Your task to perform on an android device: Open Android settings Image 0: 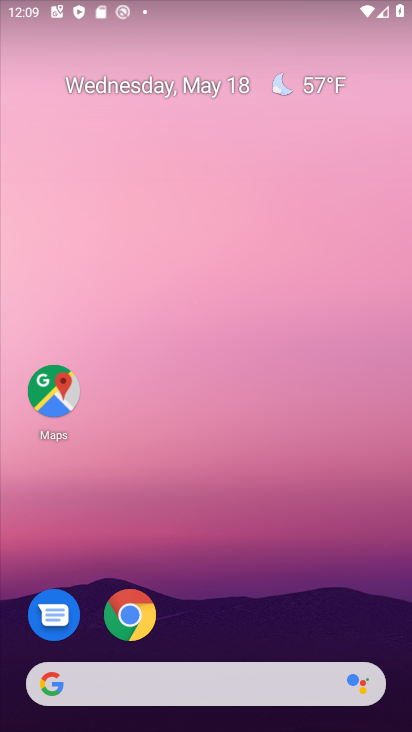
Step 0: drag from (366, 607) to (284, 125)
Your task to perform on an android device: Open Android settings Image 1: 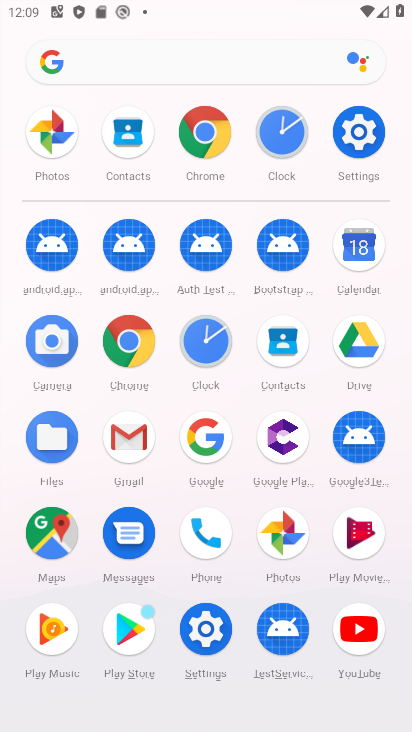
Step 1: click (217, 625)
Your task to perform on an android device: Open Android settings Image 2: 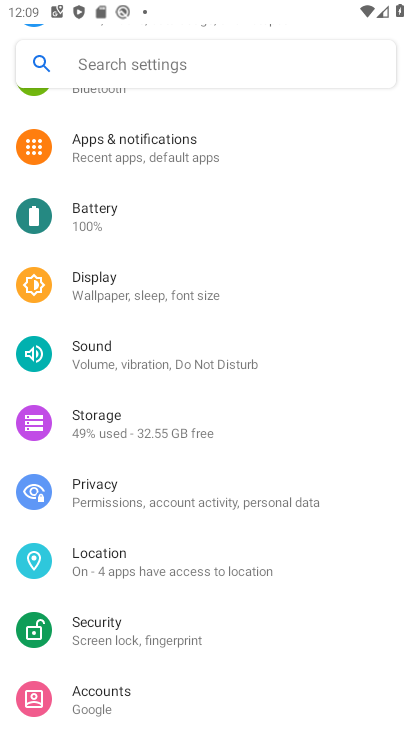
Step 2: drag from (157, 648) to (167, 69)
Your task to perform on an android device: Open Android settings Image 3: 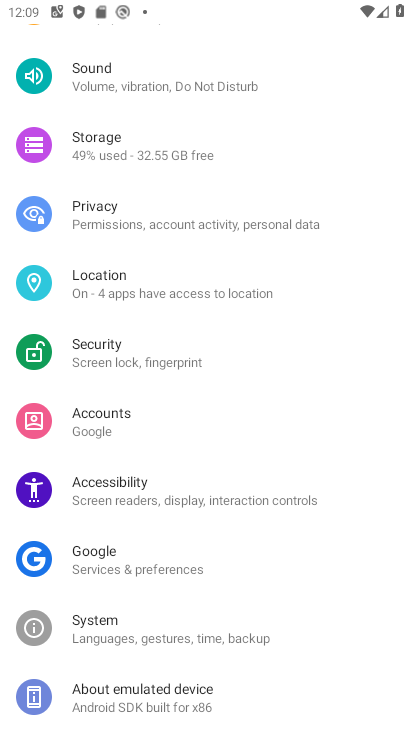
Step 3: click (187, 702)
Your task to perform on an android device: Open Android settings Image 4: 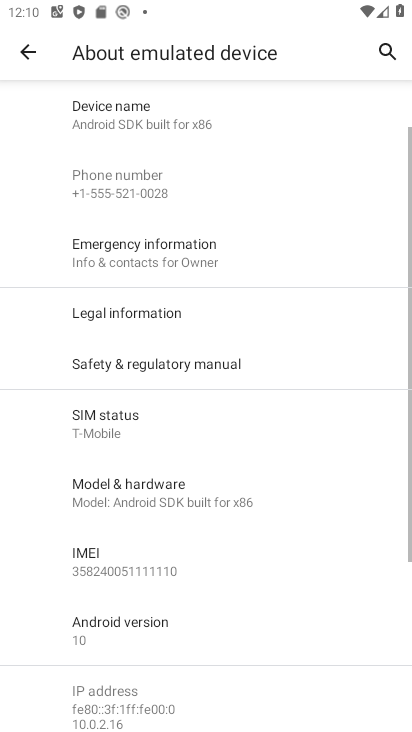
Step 4: click (150, 640)
Your task to perform on an android device: Open Android settings Image 5: 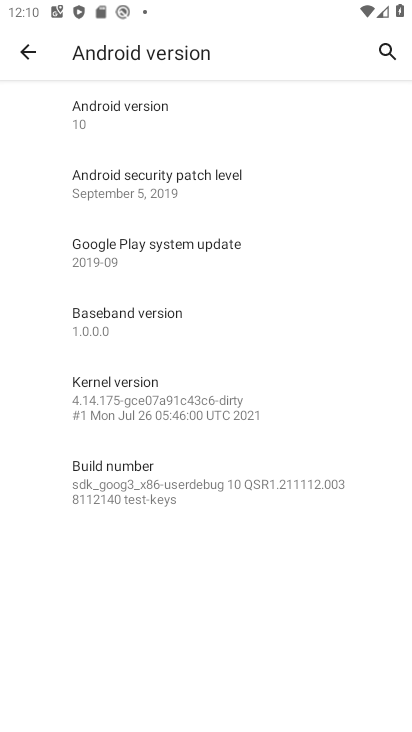
Step 5: task complete